Your task to perform on an android device: open chrome and create a bookmark for the current page Image 0: 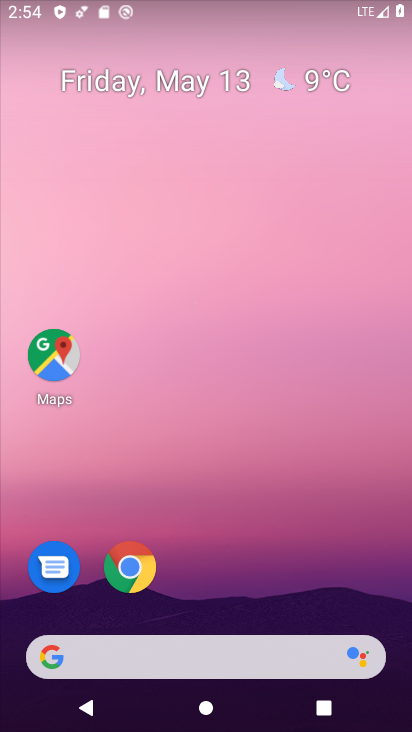
Step 0: click (142, 575)
Your task to perform on an android device: open chrome and create a bookmark for the current page Image 1: 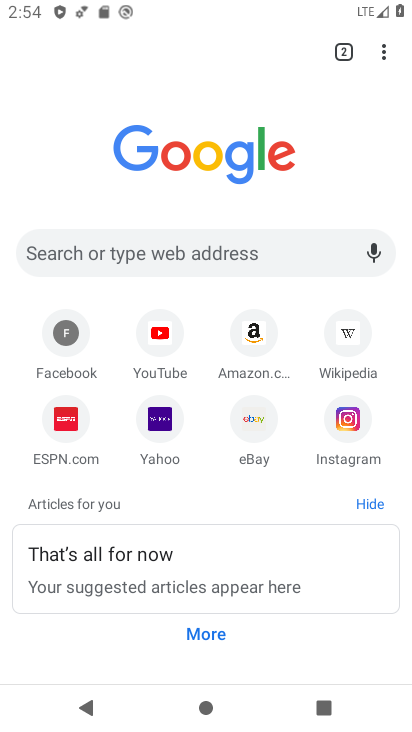
Step 1: click (388, 51)
Your task to perform on an android device: open chrome and create a bookmark for the current page Image 2: 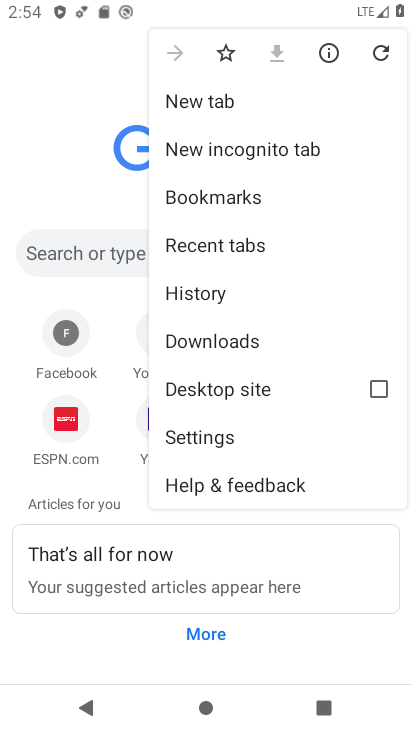
Step 2: click (224, 53)
Your task to perform on an android device: open chrome and create a bookmark for the current page Image 3: 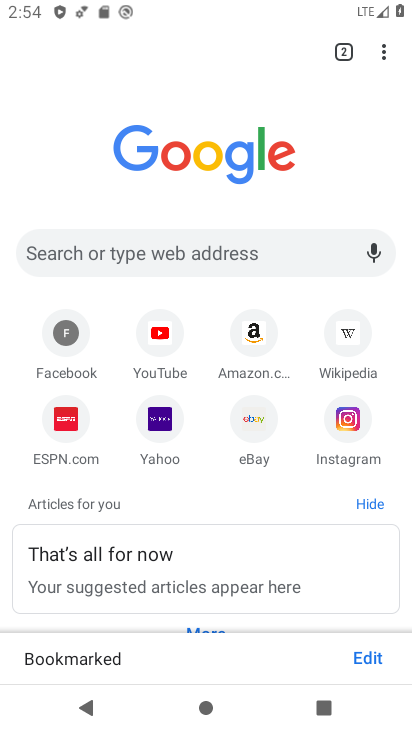
Step 3: task complete